Your task to perform on an android device: turn on location history Image 0: 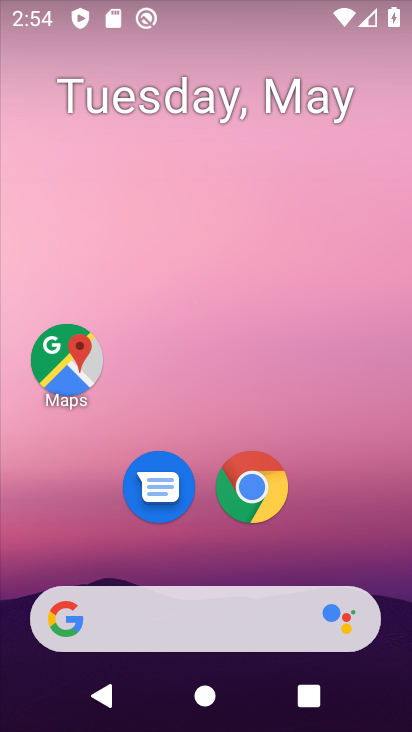
Step 0: drag from (213, 578) to (355, 385)
Your task to perform on an android device: turn on location history Image 1: 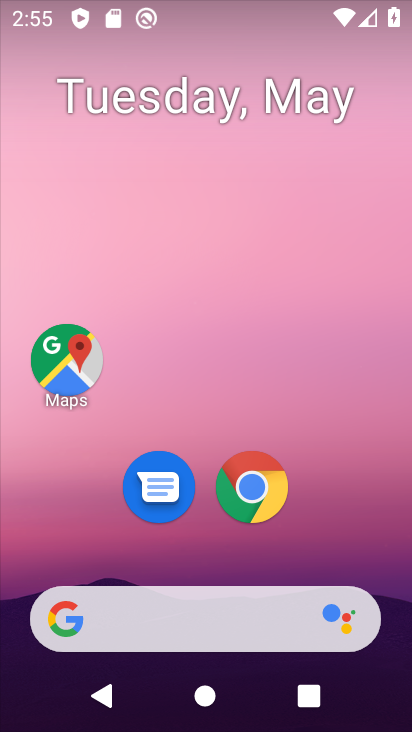
Step 1: drag from (219, 565) to (172, 40)
Your task to perform on an android device: turn on location history Image 2: 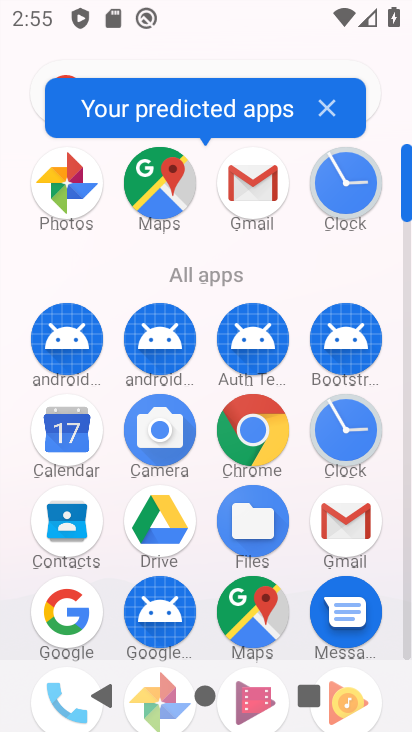
Step 2: drag from (195, 563) to (144, 23)
Your task to perform on an android device: turn on location history Image 3: 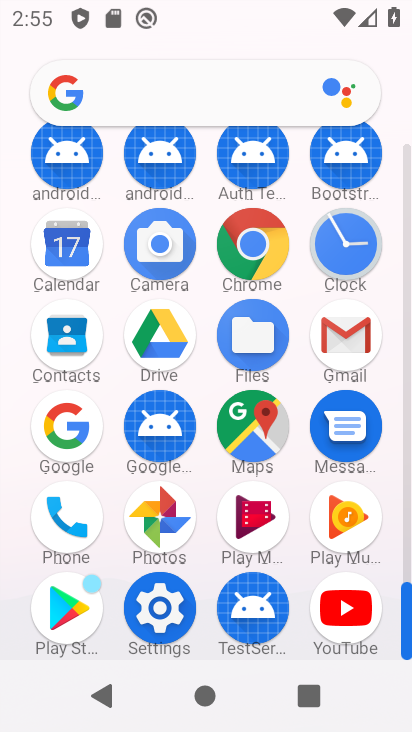
Step 3: click (163, 619)
Your task to perform on an android device: turn on location history Image 4: 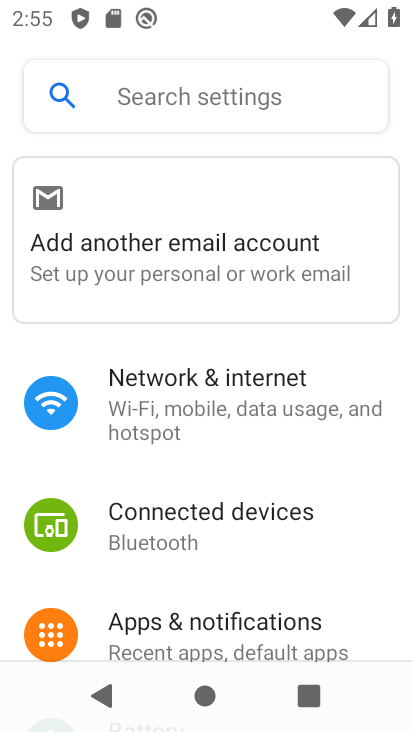
Step 4: drag from (293, 591) to (239, 150)
Your task to perform on an android device: turn on location history Image 5: 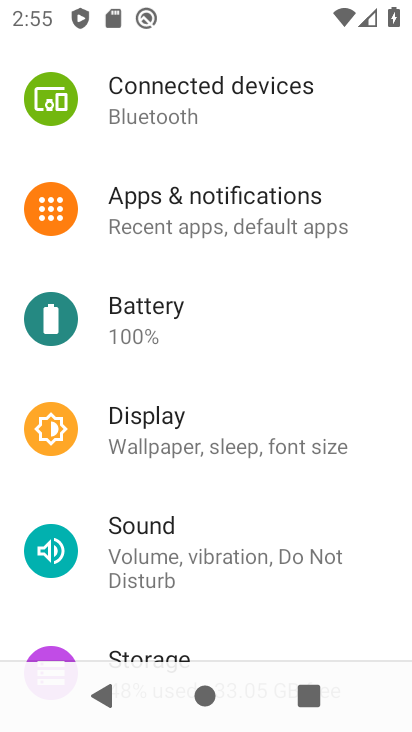
Step 5: drag from (184, 548) to (181, 166)
Your task to perform on an android device: turn on location history Image 6: 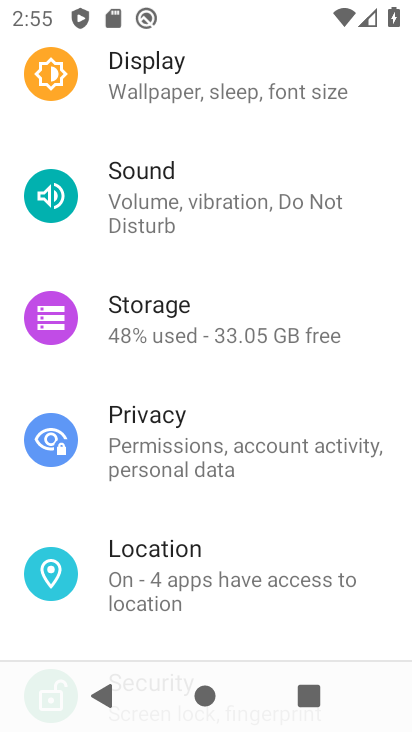
Step 6: click (144, 547)
Your task to perform on an android device: turn on location history Image 7: 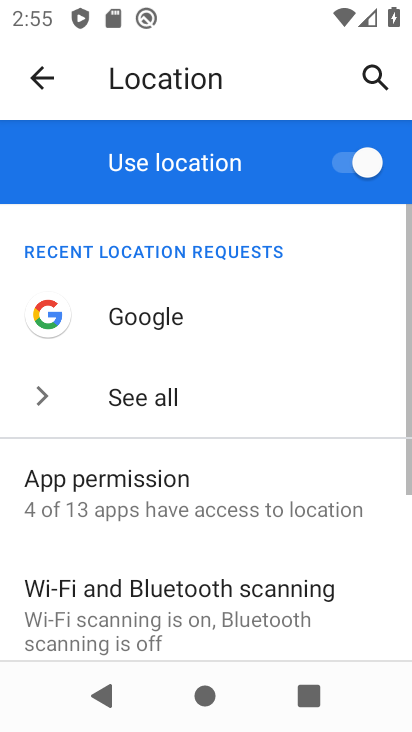
Step 7: drag from (316, 630) to (285, 207)
Your task to perform on an android device: turn on location history Image 8: 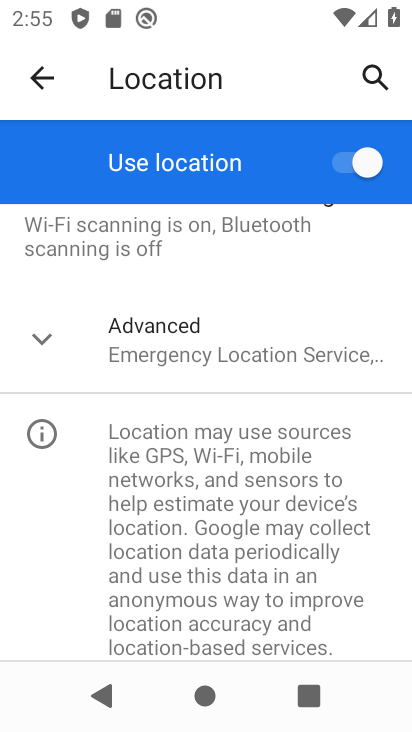
Step 8: click (145, 363)
Your task to perform on an android device: turn on location history Image 9: 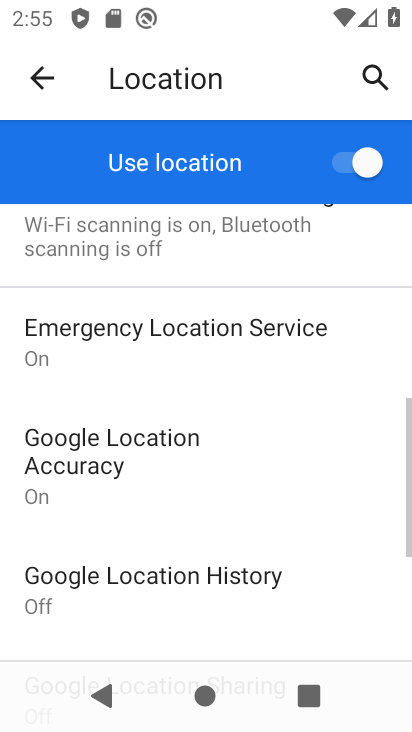
Step 9: click (200, 573)
Your task to perform on an android device: turn on location history Image 10: 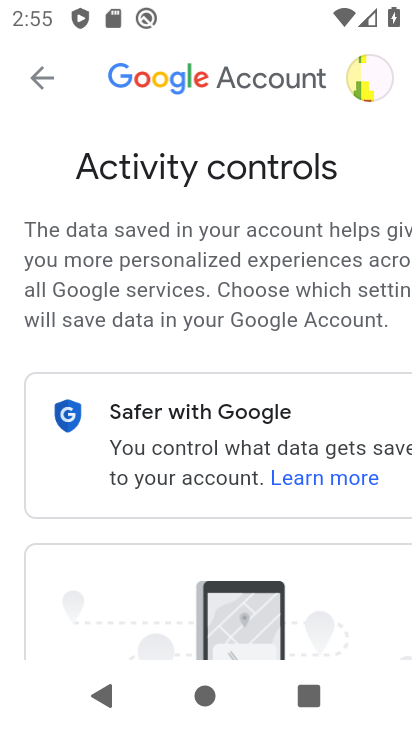
Step 10: drag from (264, 582) to (164, 140)
Your task to perform on an android device: turn on location history Image 11: 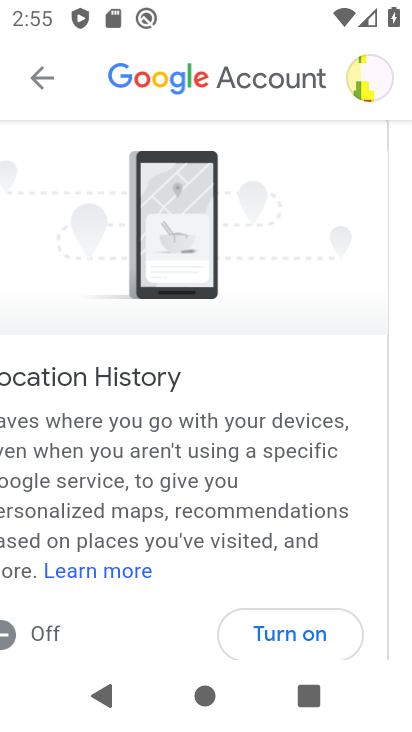
Step 11: click (308, 641)
Your task to perform on an android device: turn on location history Image 12: 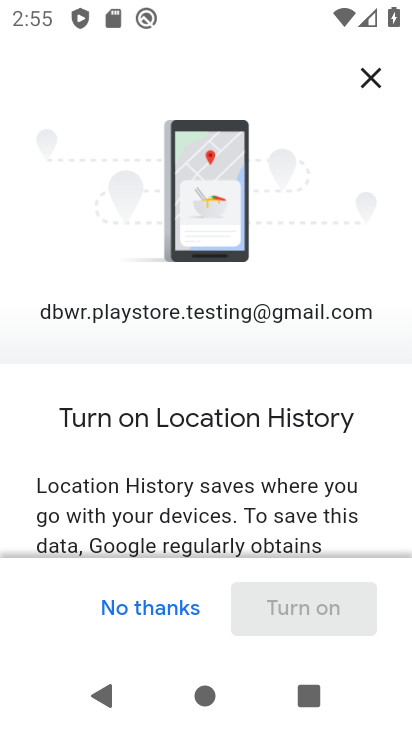
Step 12: drag from (354, 498) to (303, 19)
Your task to perform on an android device: turn on location history Image 13: 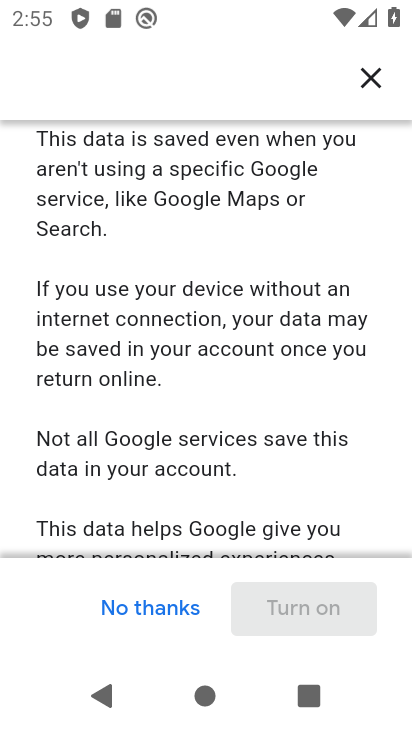
Step 13: drag from (295, 456) to (271, 11)
Your task to perform on an android device: turn on location history Image 14: 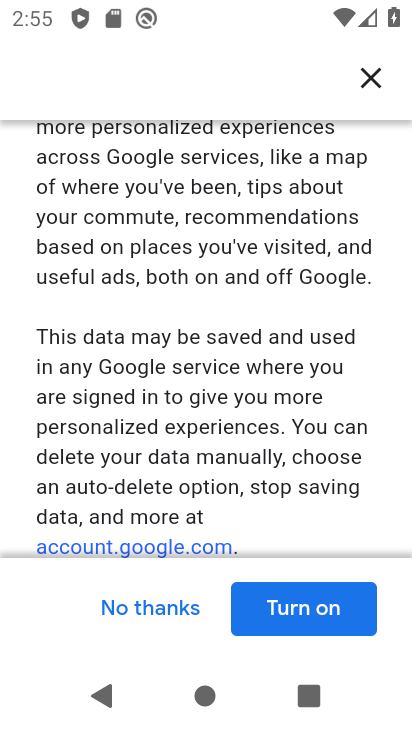
Step 14: click (312, 601)
Your task to perform on an android device: turn on location history Image 15: 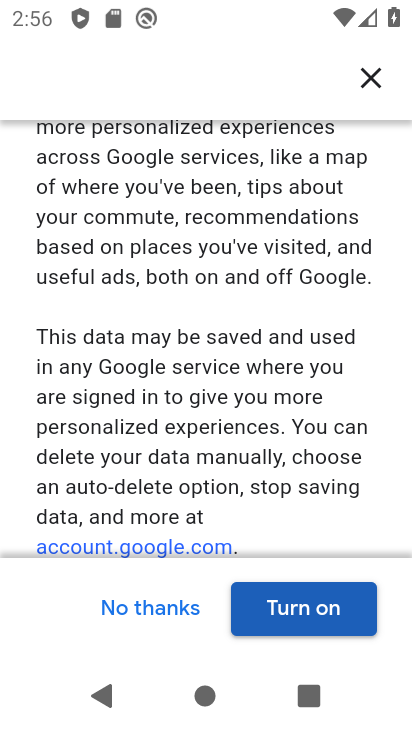
Step 15: click (319, 590)
Your task to perform on an android device: turn on location history Image 16: 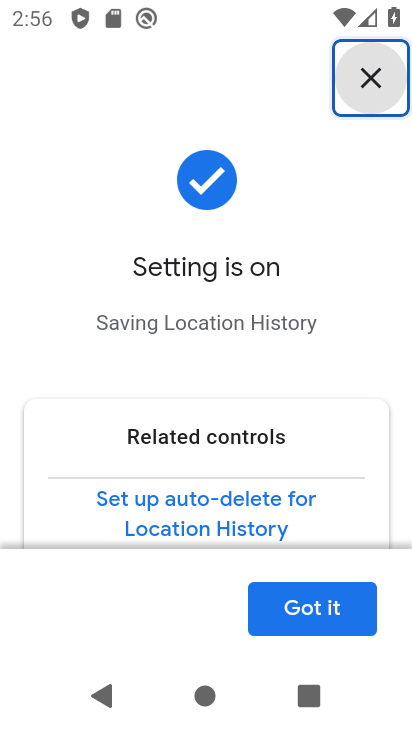
Step 16: click (310, 601)
Your task to perform on an android device: turn on location history Image 17: 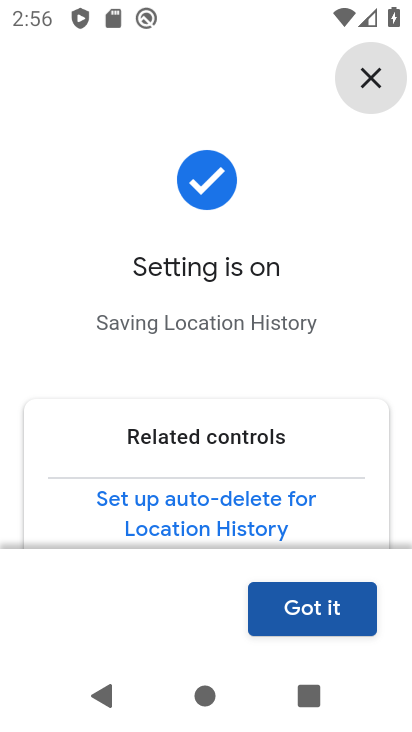
Step 17: task complete